Your task to perform on an android device: What is the news today? Image 0: 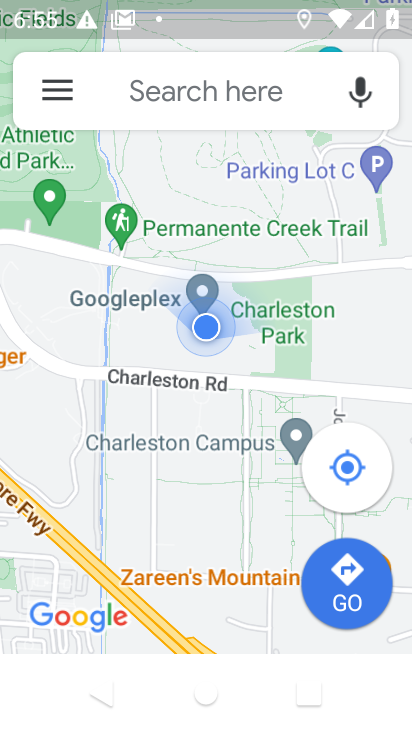
Step 0: task complete